Your task to perform on an android device: Open Amazon Image 0: 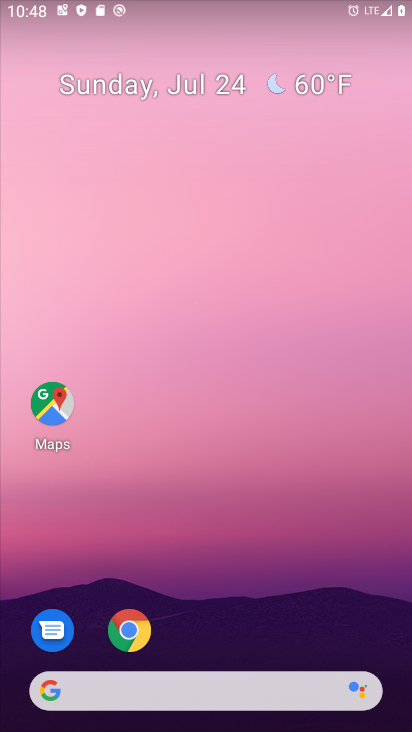
Step 0: click (119, 629)
Your task to perform on an android device: Open Amazon Image 1: 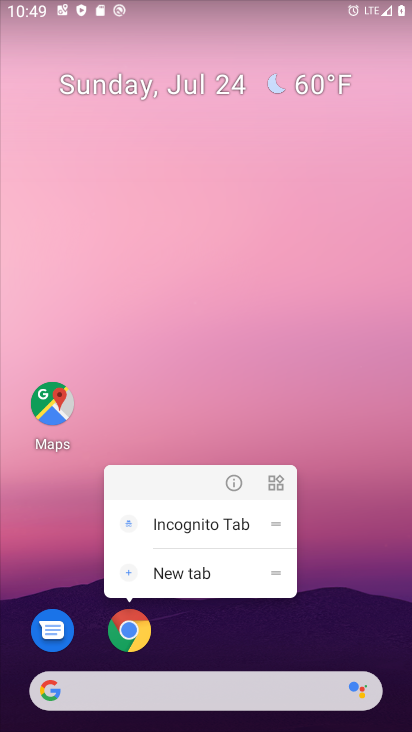
Step 1: click (124, 630)
Your task to perform on an android device: Open Amazon Image 2: 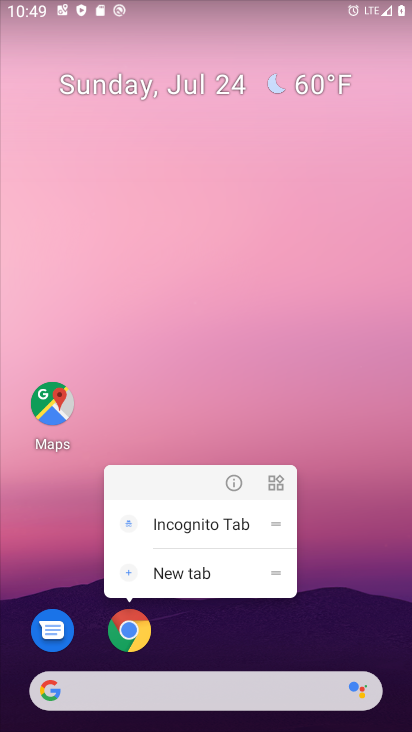
Step 2: click (125, 630)
Your task to perform on an android device: Open Amazon Image 3: 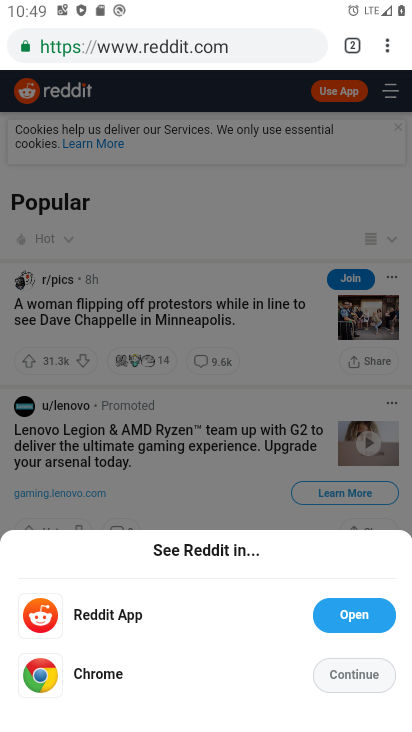
Step 3: click (164, 48)
Your task to perform on an android device: Open Amazon Image 4: 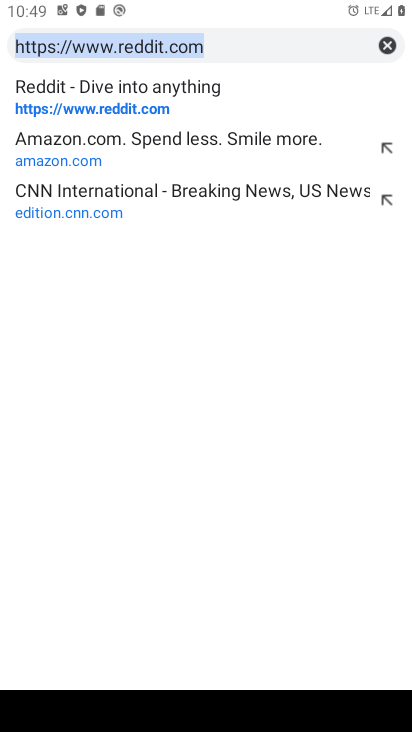
Step 4: type "Amazon"
Your task to perform on an android device: Open Amazon Image 5: 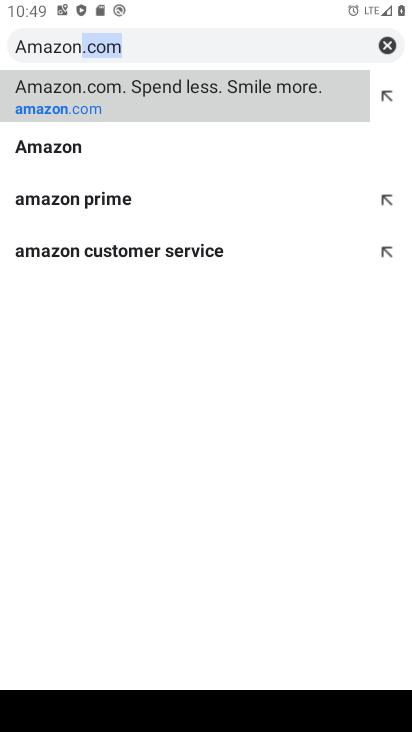
Step 5: click (117, 112)
Your task to perform on an android device: Open Amazon Image 6: 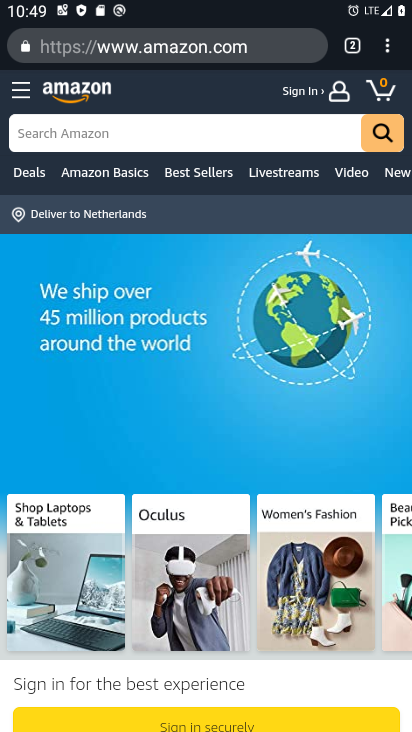
Step 6: task complete